Your task to perform on an android device: Open Google Maps Image 0: 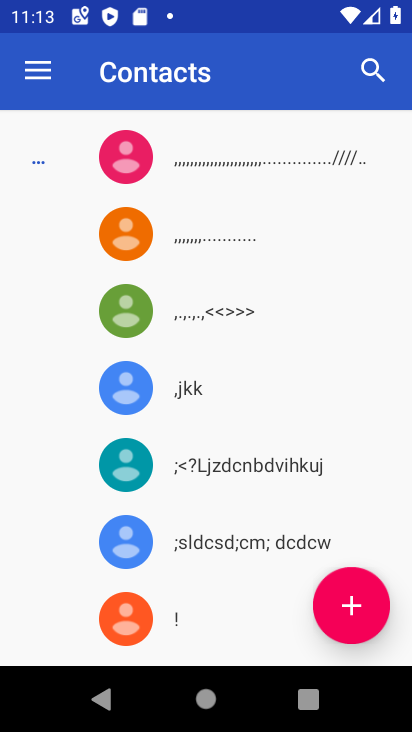
Step 0: press home button
Your task to perform on an android device: Open Google Maps Image 1: 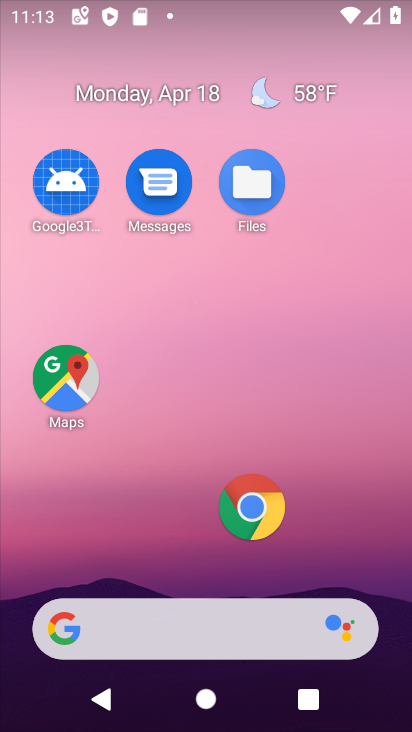
Step 1: drag from (189, 578) to (224, 27)
Your task to perform on an android device: Open Google Maps Image 2: 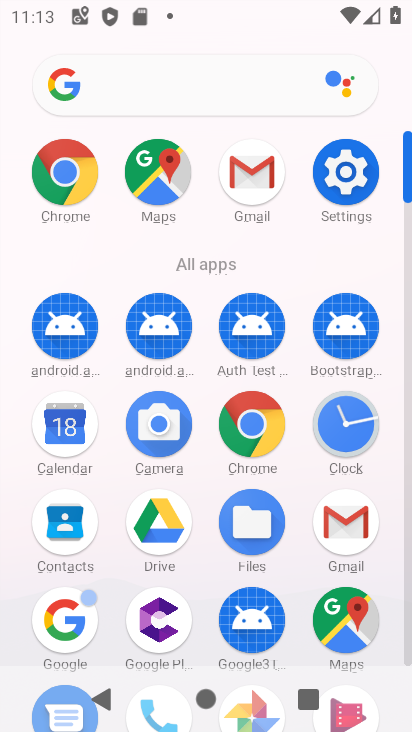
Step 2: click (166, 167)
Your task to perform on an android device: Open Google Maps Image 3: 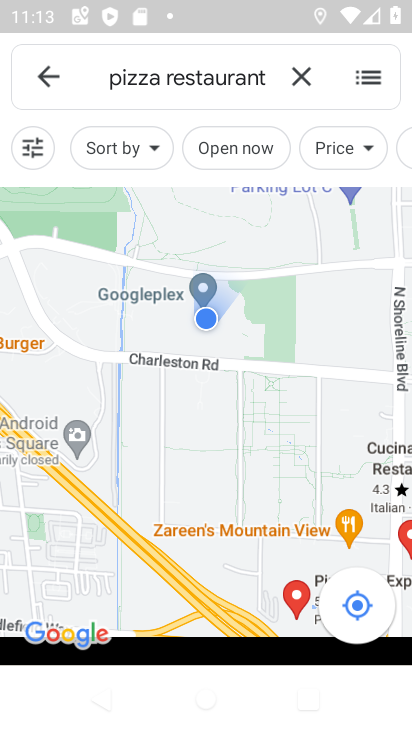
Step 3: click (305, 82)
Your task to perform on an android device: Open Google Maps Image 4: 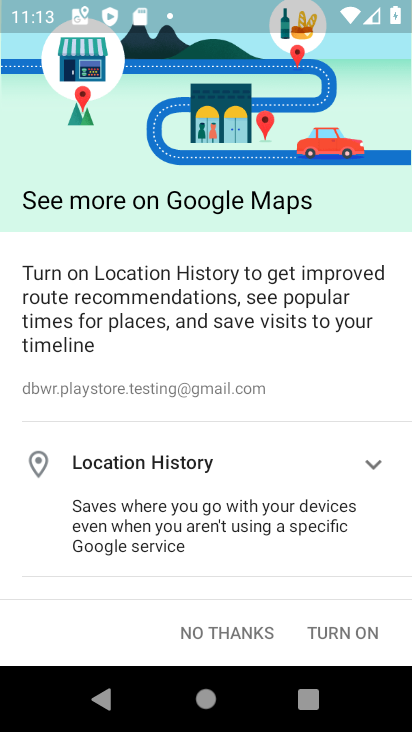
Step 4: click (344, 628)
Your task to perform on an android device: Open Google Maps Image 5: 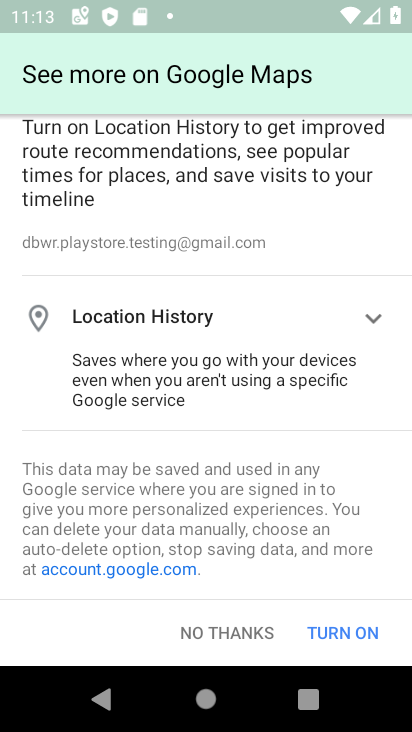
Step 5: click (338, 627)
Your task to perform on an android device: Open Google Maps Image 6: 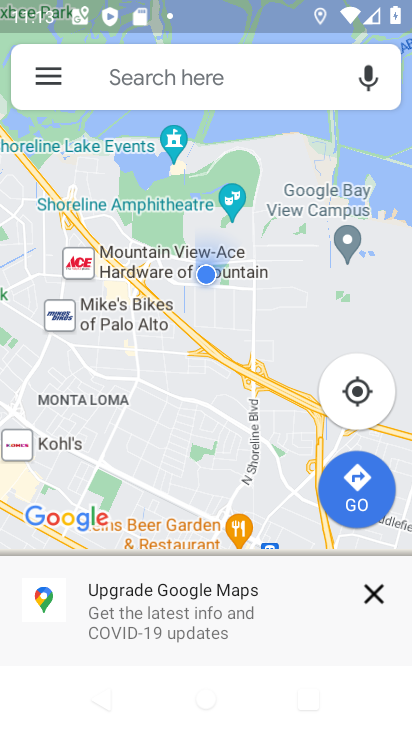
Step 6: task complete